Your task to perform on an android device: Go to Amazon Image 0: 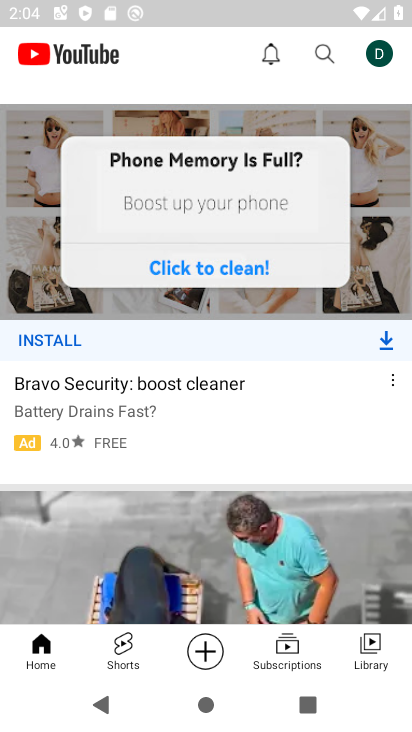
Step 0: press back button
Your task to perform on an android device: Go to Amazon Image 1: 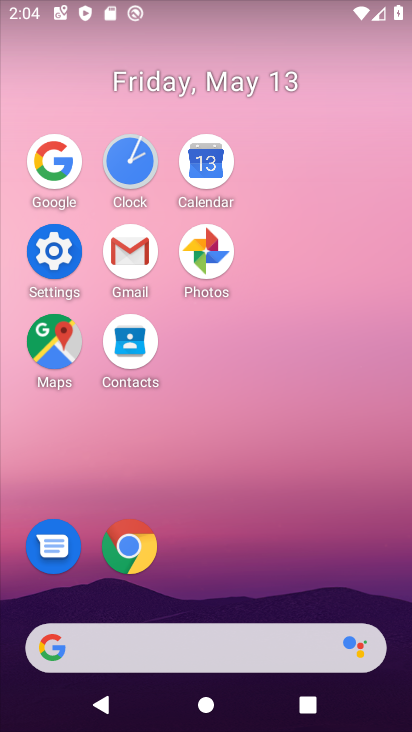
Step 1: click (147, 573)
Your task to perform on an android device: Go to Amazon Image 2: 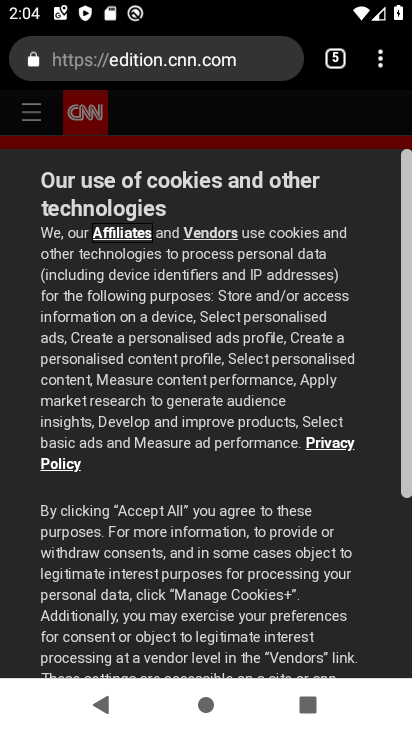
Step 2: click (335, 45)
Your task to perform on an android device: Go to Amazon Image 3: 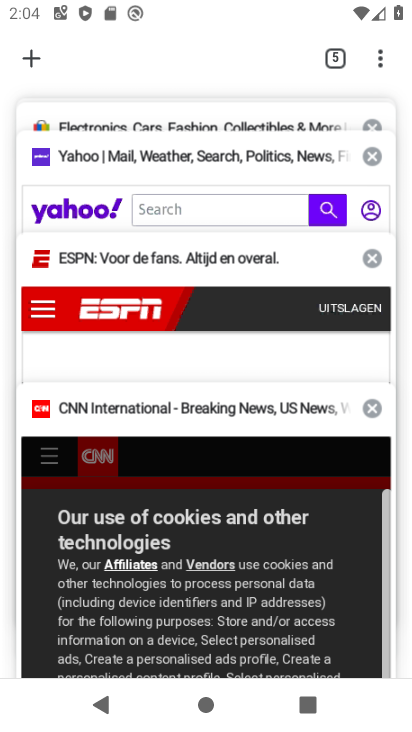
Step 3: drag from (173, 491) to (173, 562)
Your task to perform on an android device: Go to Amazon Image 4: 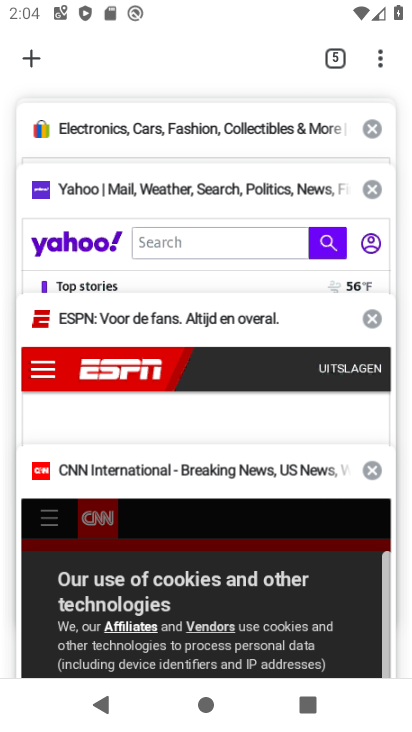
Step 4: drag from (202, 136) to (155, 511)
Your task to perform on an android device: Go to Amazon Image 5: 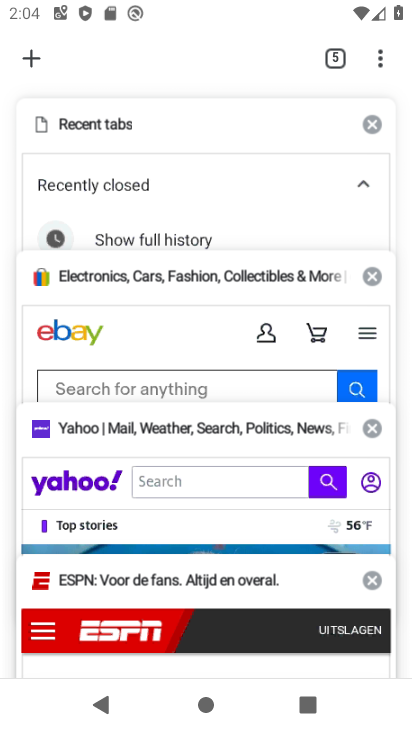
Step 5: drag from (152, 206) to (122, 509)
Your task to perform on an android device: Go to Amazon Image 6: 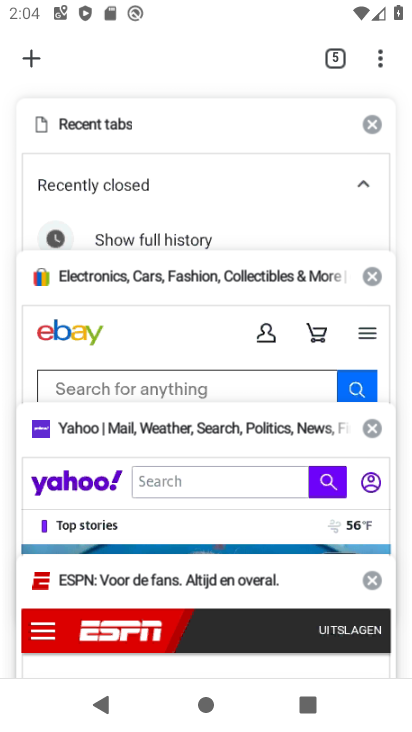
Step 6: click (31, 52)
Your task to perform on an android device: Go to Amazon Image 7: 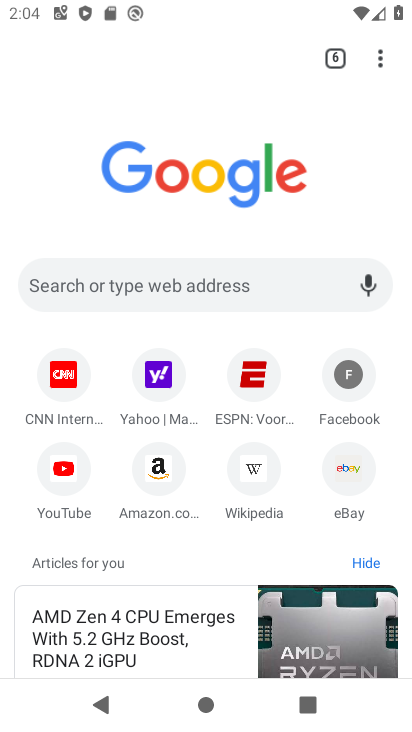
Step 7: click (142, 477)
Your task to perform on an android device: Go to Amazon Image 8: 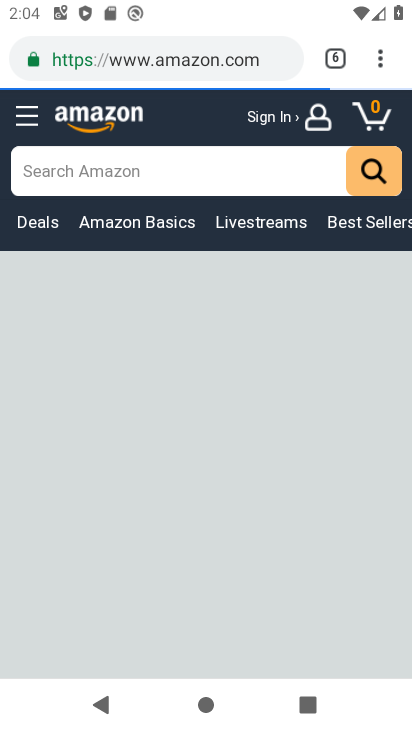
Step 8: task complete